Your task to perform on an android device: Open the calendar and show me this week's events Image 0: 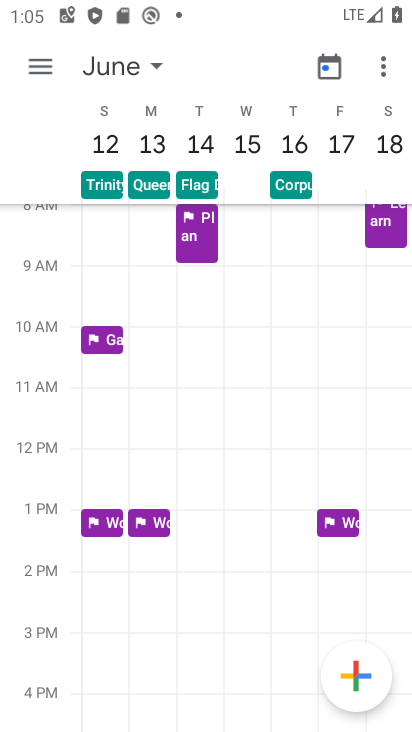
Step 0: drag from (109, 413) to (411, 404)
Your task to perform on an android device: Open the calendar and show me this week's events Image 1: 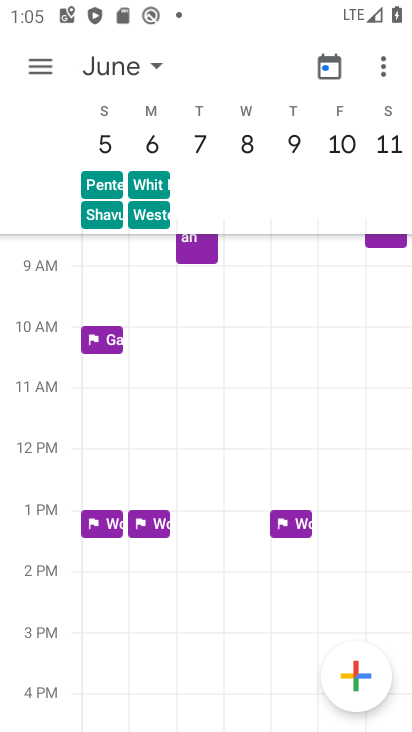
Step 1: task complete